Your task to perform on an android device: Open Reddit.com Image 0: 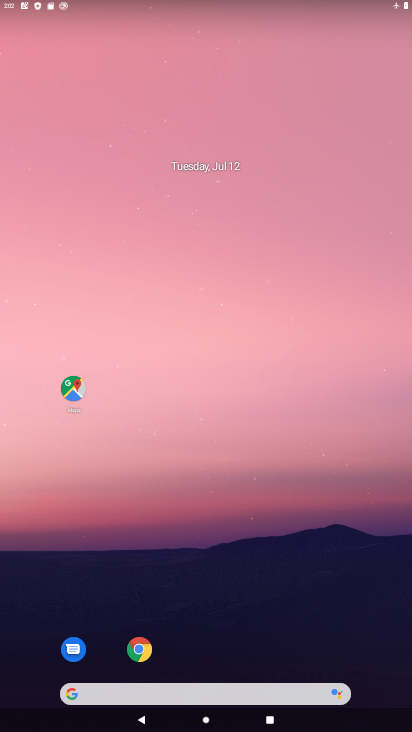
Step 0: click (177, 685)
Your task to perform on an android device: Open Reddit.com Image 1: 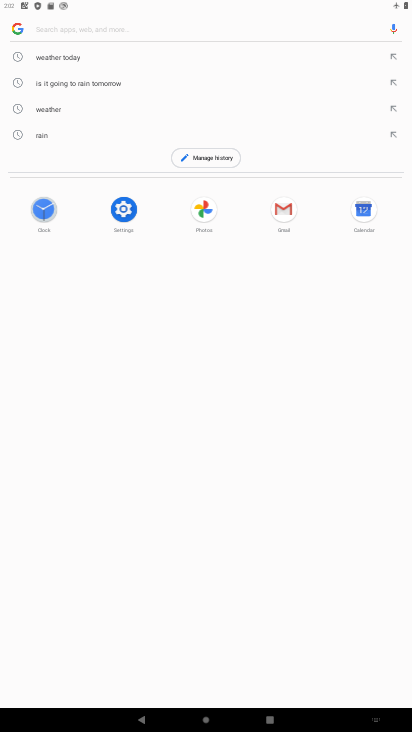
Step 1: type "reddit.com"
Your task to perform on an android device: Open Reddit.com Image 2: 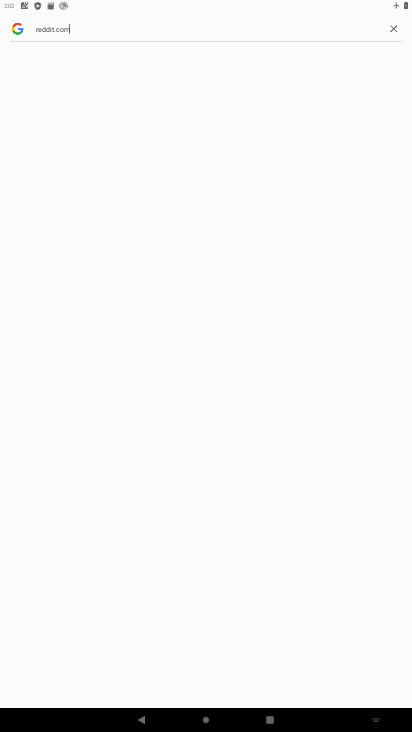
Step 2: task complete